Your task to perform on an android device: turn on notifications settings in the gmail app Image 0: 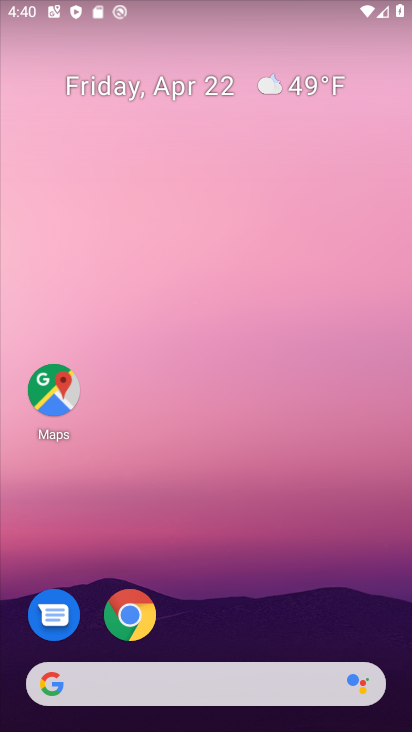
Step 0: drag from (200, 551) to (199, 227)
Your task to perform on an android device: turn on notifications settings in the gmail app Image 1: 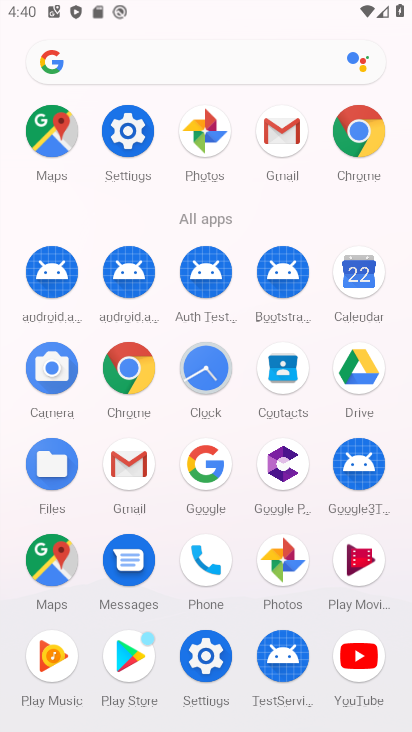
Step 1: click (271, 149)
Your task to perform on an android device: turn on notifications settings in the gmail app Image 2: 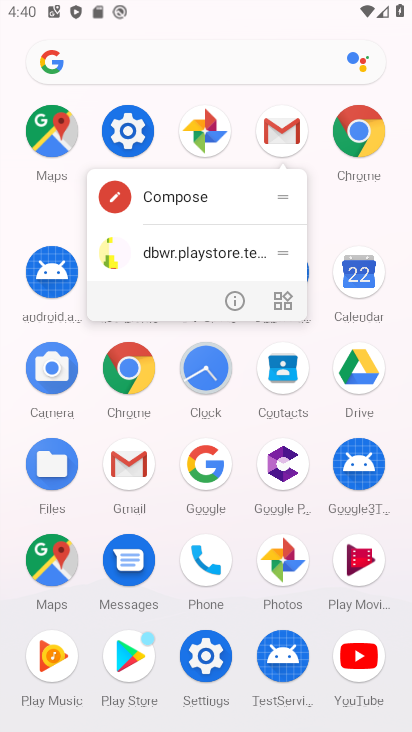
Step 2: click (273, 147)
Your task to perform on an android device: turn on notifications settings in the gmail app Image 3: 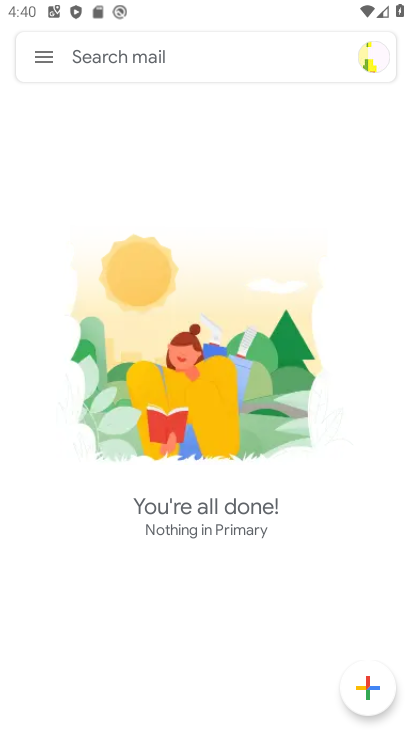
Step 3: click (39, 60)
Your task to perform on an android device: turn on notifications settings in the gmail app Image 4: 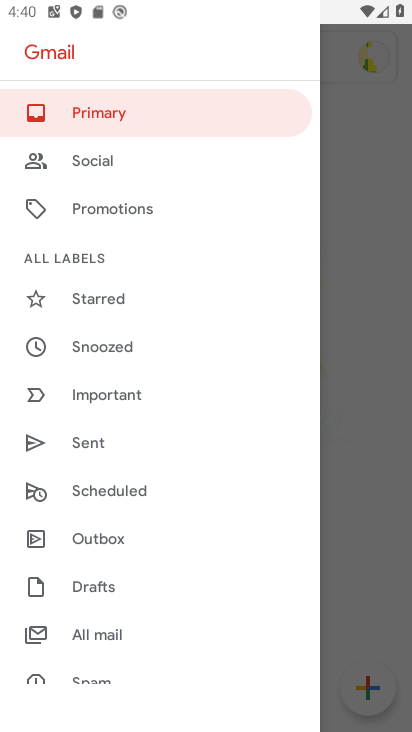
Step 4: drag from (137, 533) to (148, 268)
Your task to perform on an android device: turn on notifications settings in the gmail app Image 5: 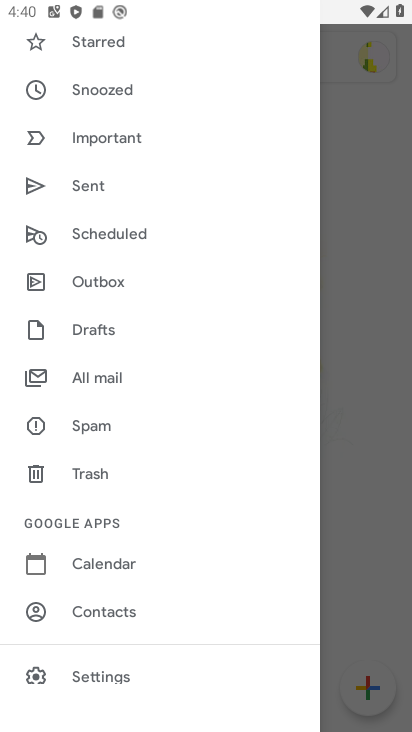
Step 5: click (93, 668)
Your task to perform on an android device: turn on notifications settings in the gmail app Image 6: 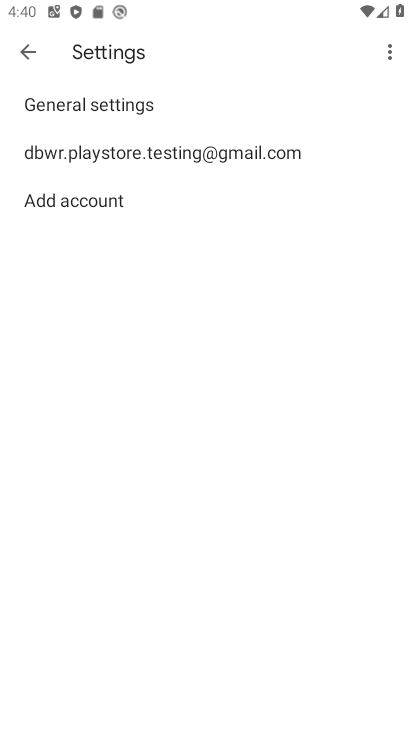
Step 6: click (190, 167)
Your task to perform on an android device: turn on notifications settings in the gmail app Image 7: 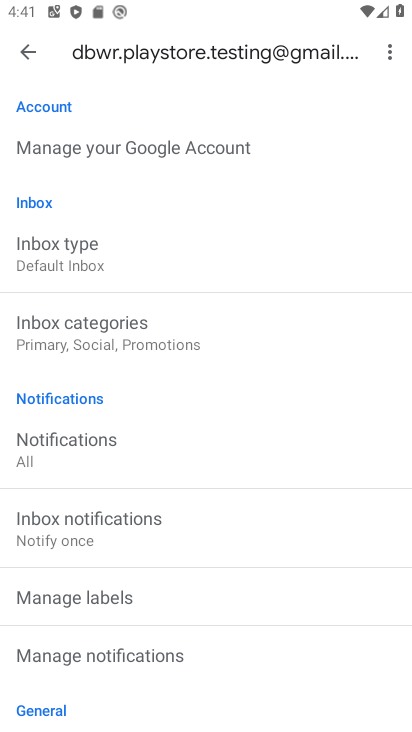
Step 7: drag from (177, 607) to (191, 455)
Your task to perform on an android device: turn on notifications settings in the gmail app Image 8: 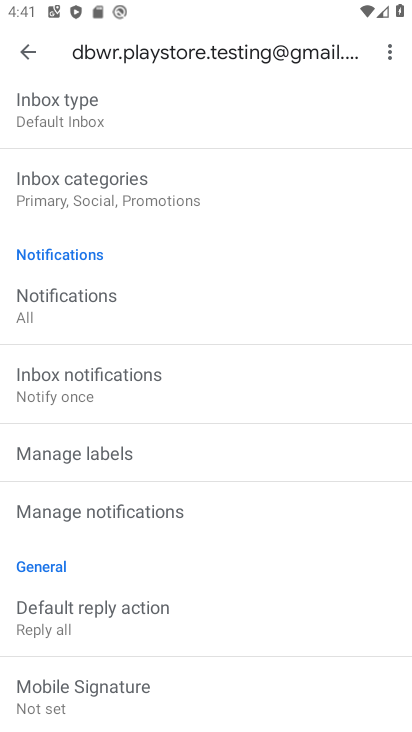
Step 8: click (158, 498)
Your task to perform on an android device: turn on notifications settings in the gmail app Image 9: 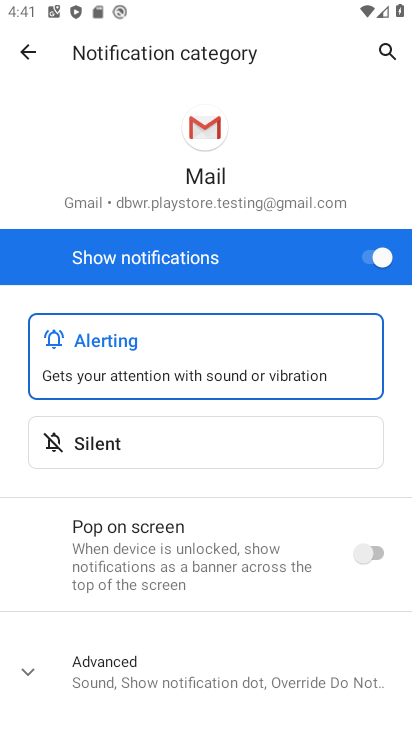
Step 9: click (364, 256)
Your task to perform on an android device: turn on notifications settings in the gmail app Image 10: 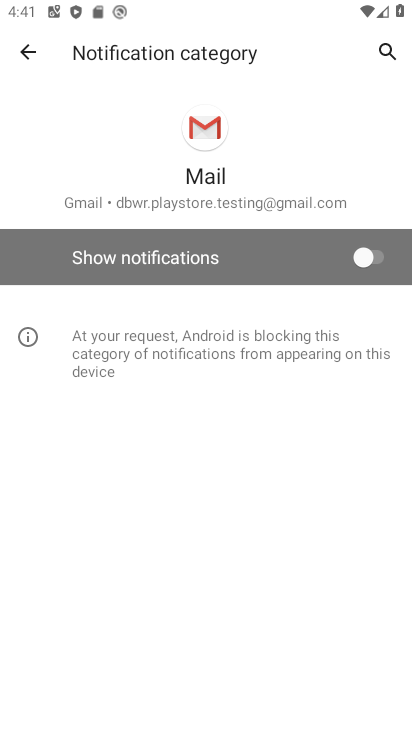
Step 10: click (377, 259)
Your task to perform on an android device: turn on notifications settings in the gmail app Image 11: 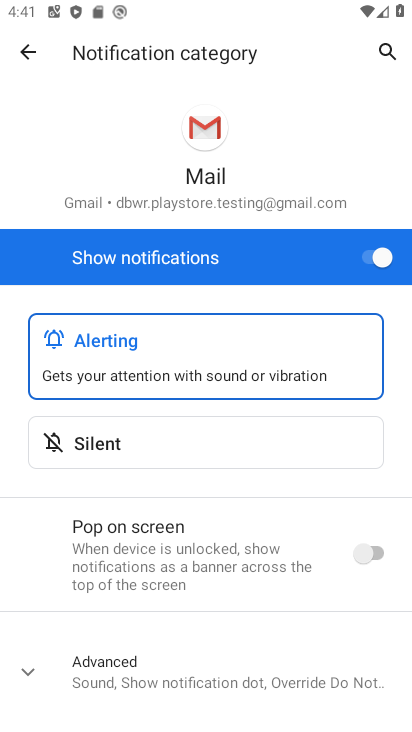
Step 11: task complete